Your task to perform on an android device: Open settings on Google Maps Image 0: 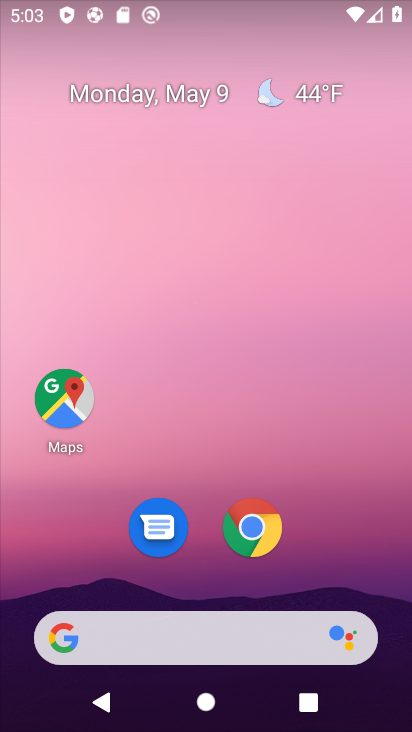
Step 0: drag from (337, 551) to (88, 7)
Your task to perform on an android device: Open settings on Google Maps Image 1: 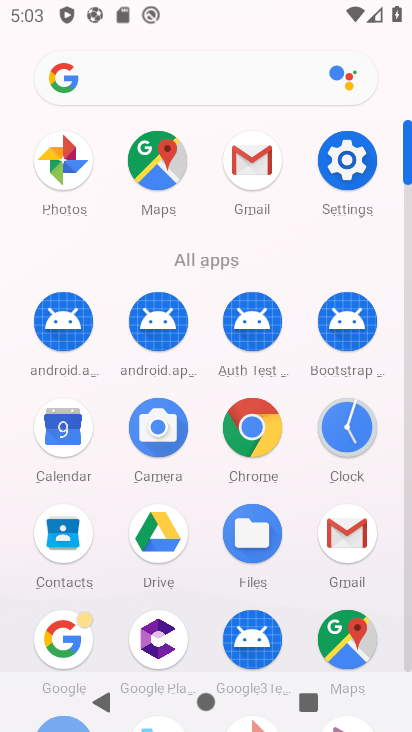
Step 1: click (159, 158)
Your task to perform on an android device: Open settings on Google Maps Image 2: 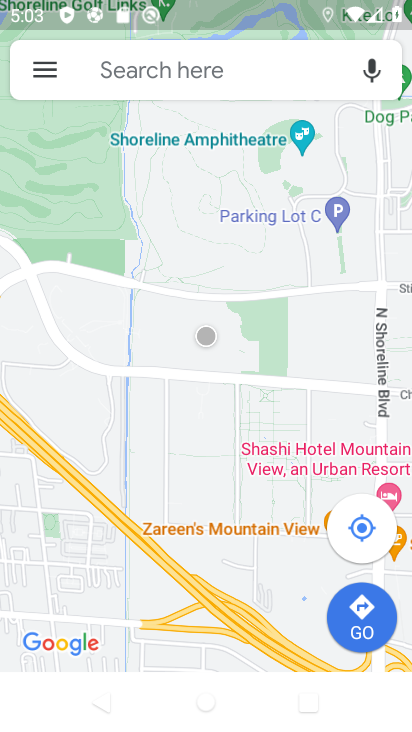
Step 2: click (252, 76)
Your task to perform on an android device: Open settings on Google Maps Image 3: 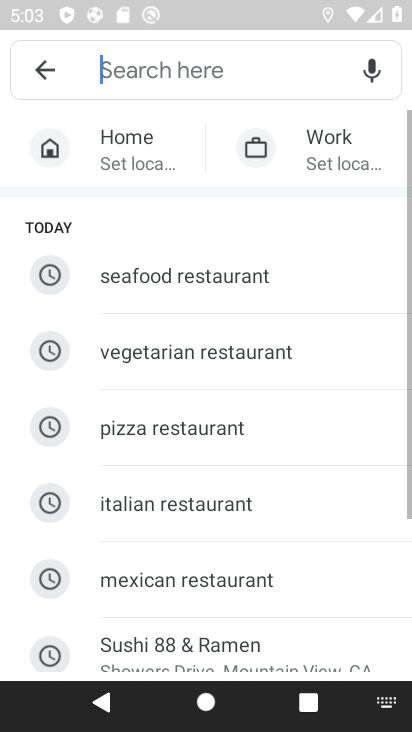
Step 3: click (246, 68)
Your task to perform on an android device: Open settings on Google Maps Image 4: 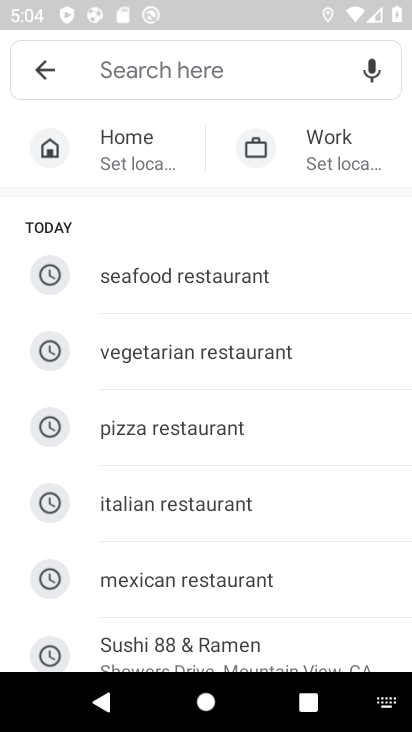
Step 4: click (44, 65)
Your task to perform on an android device: Open settings on Google Maps Image 5: 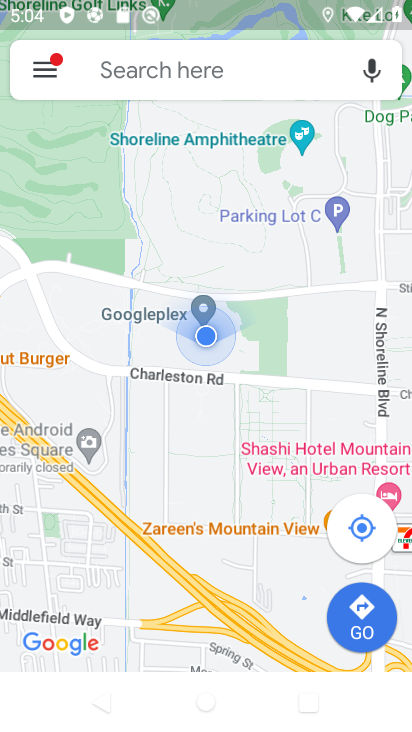
Step 5: click (35, 59)
Your task to perform on an android device: Open settings on Google Maps Image 6: 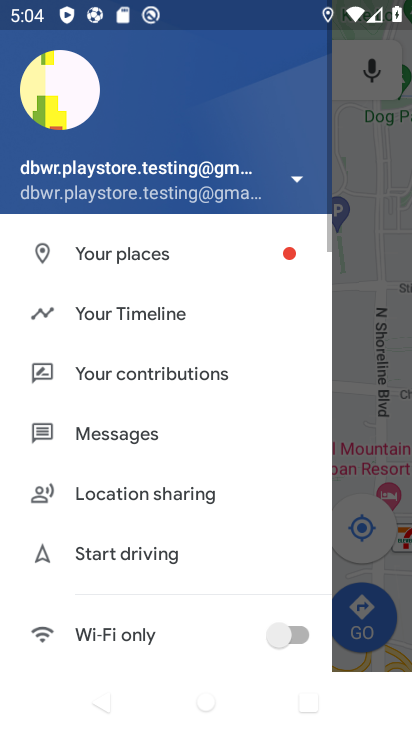
Step 6: drag from (177, 637) to (217, 273)
Your task to perform on an android device: Open settings on Google Maps Image 7: 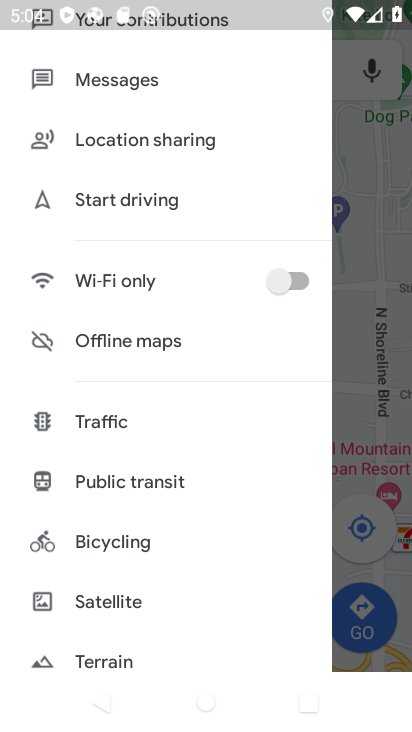
Step 7: drag from (159, 628) to (186, 221)
Your task to perform on an android device: Open settings on Google Maps Image 8: 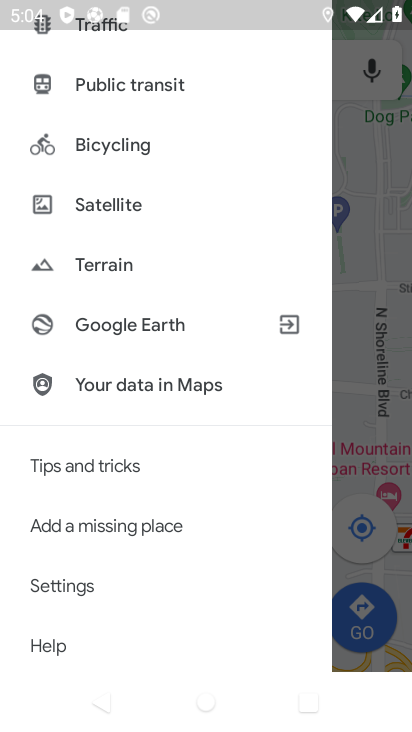
Step 8: click (94, 583)
Your task to perform on an android device: Open settings on Google Maps Image 9: 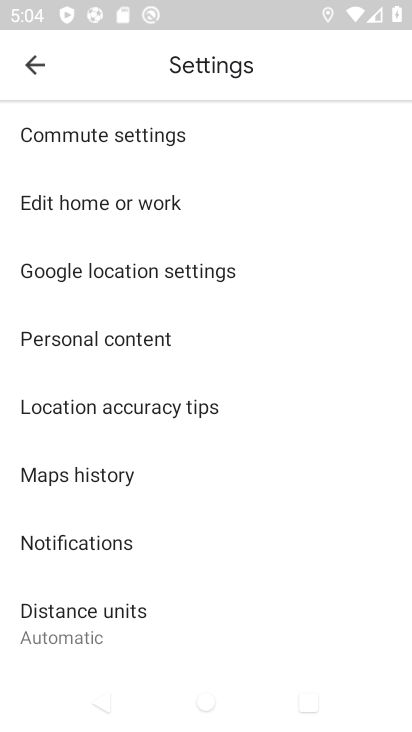
Step 9: task complete